Your task to perform on an android device: turn pop-ups on in chrome Image 0: 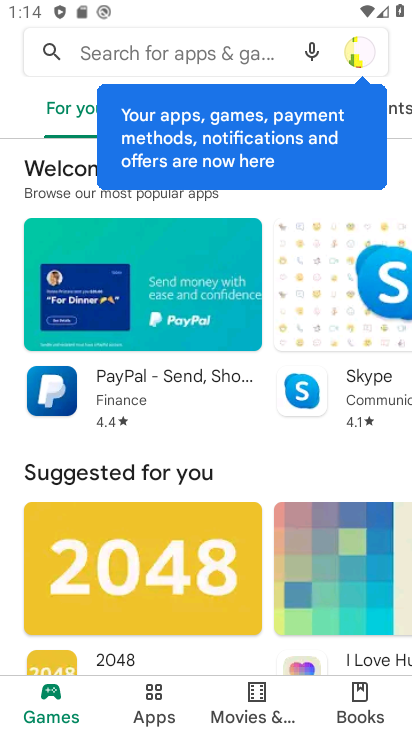
Step 0: press home button
Your task to perform on an android device: turn pop-ups on in chrome Image 1: 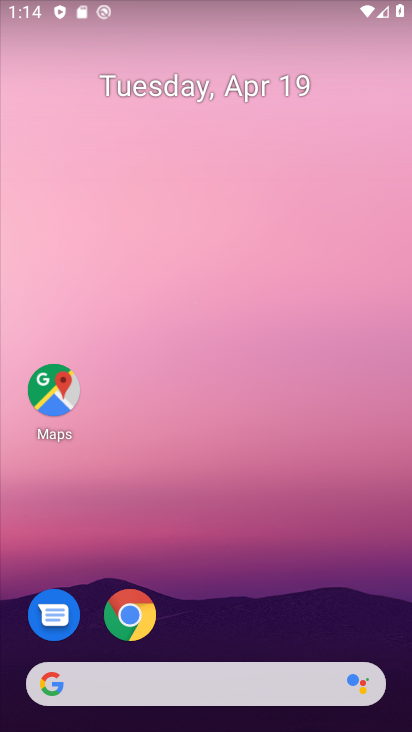
Step 1: click (126, 608)
Your task to perform on an android device: turn pop-ups on in chrome Image 2: 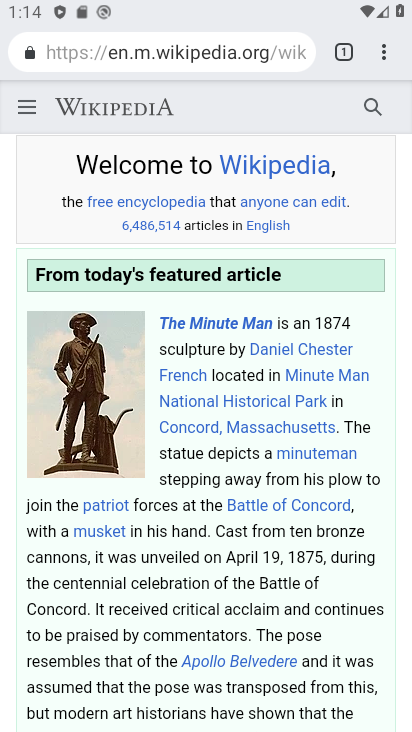
Step 2: click (370, 123)
Your task to perform on an android device: turn pop-ups on in chrome Image 3: 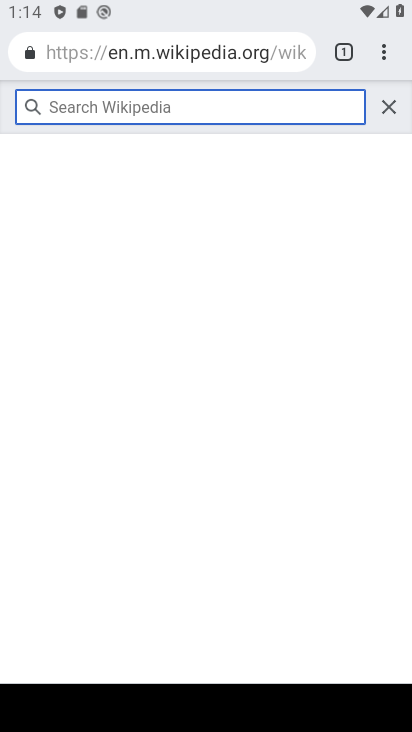
Step 3: click (383, 55)
Your task to perform on an android device: turn pop-ups on in chrome Image 4: 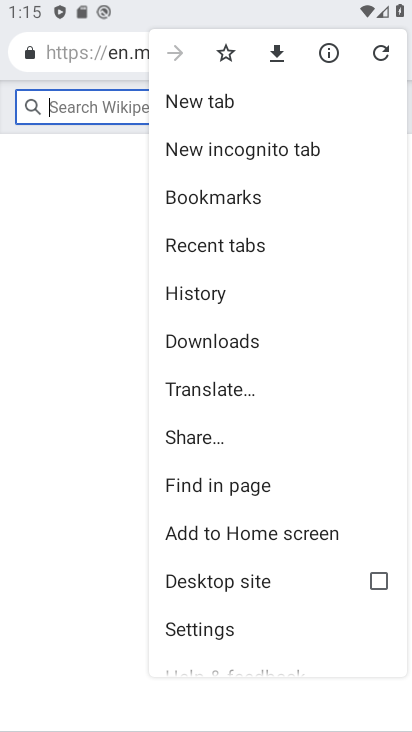
Step 4: click (202, 630)
Your task to perform on an android device: turn pop-ups on in chrome Image 5: 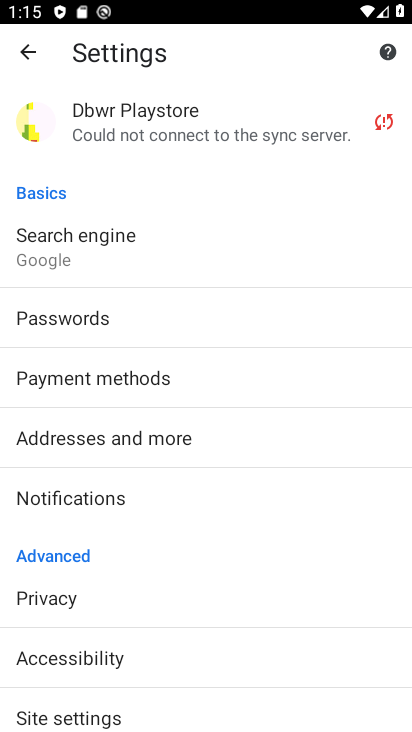
Step 5: drag from (183, 523) to (196, 260)
Your task to perform on an android device: turn pop-ups on in chrome Image 6: 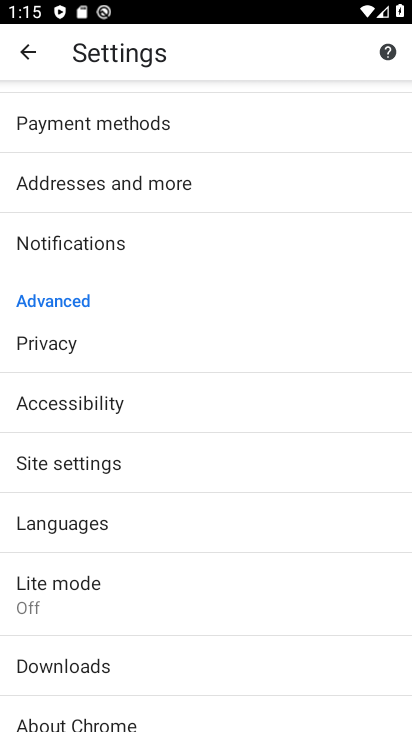
Step 6: click (81, 454)
Your task to perform on an android device: turn pop-ups on in chrome Image 7: 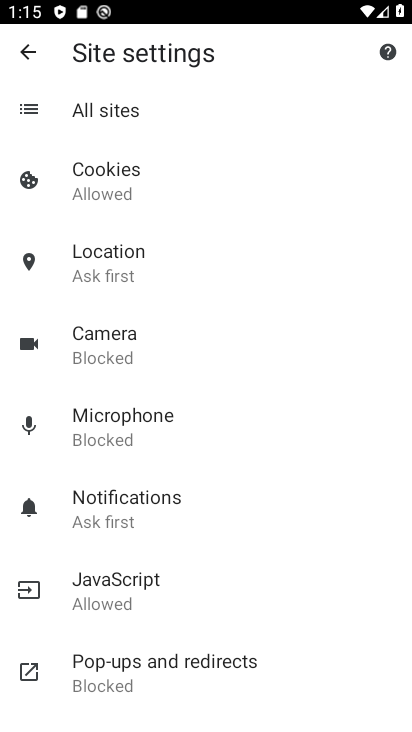
Step 7: click (123, 671)
Your task to perform on an android device: turn pop-ups on in chrome Image 8: 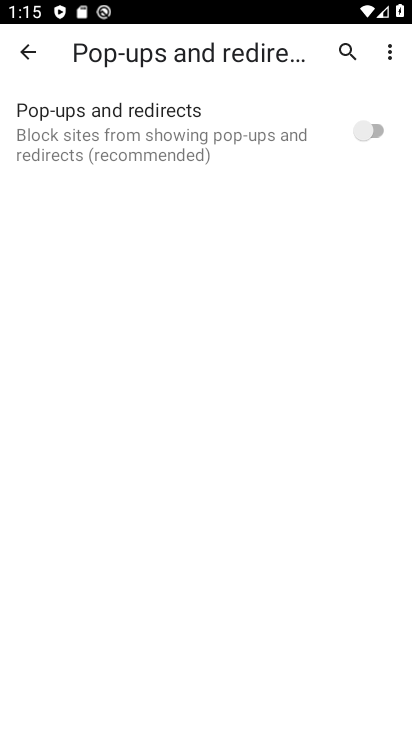
Step 8: click (359, 133)
Your task to perform on an android device: turn pop-ups on in chrome Image 9: 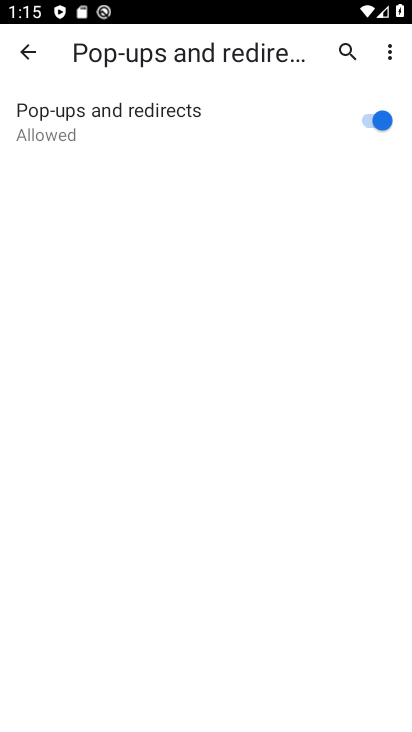
Step 9: task complete